Your task to perform on an android device: open the mobile data screen to see how much data has been used Image 0: 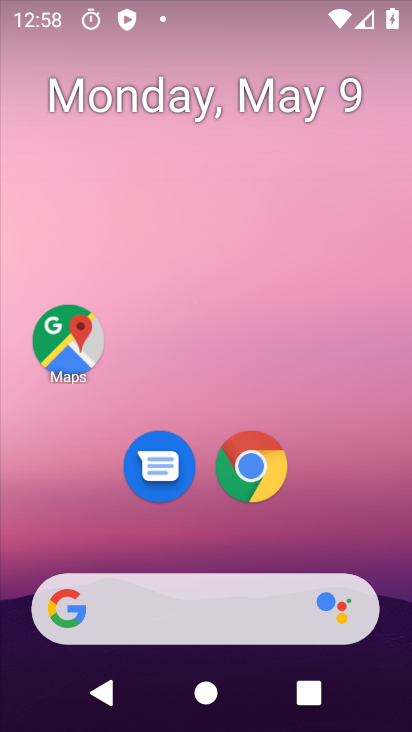
Step 0: press home button
Your task to perform on an android device: open the mobile data screen to see how much data has been used Image 1: 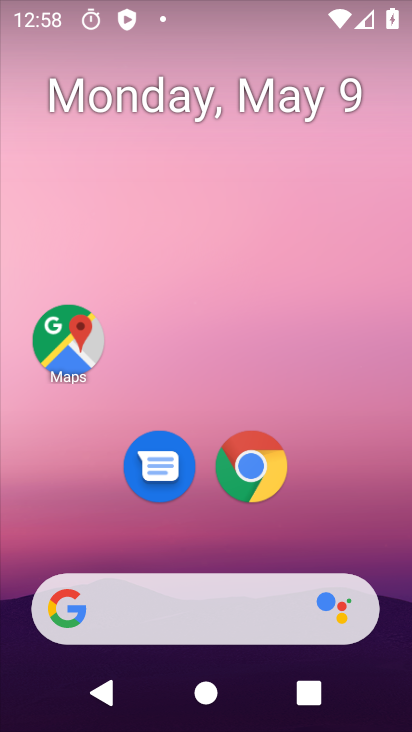
Step 1: drag from (158, 605) to (229, 131)
Your task to perform on an android device: open the mobile data screen to see how much data has been used Image 2: 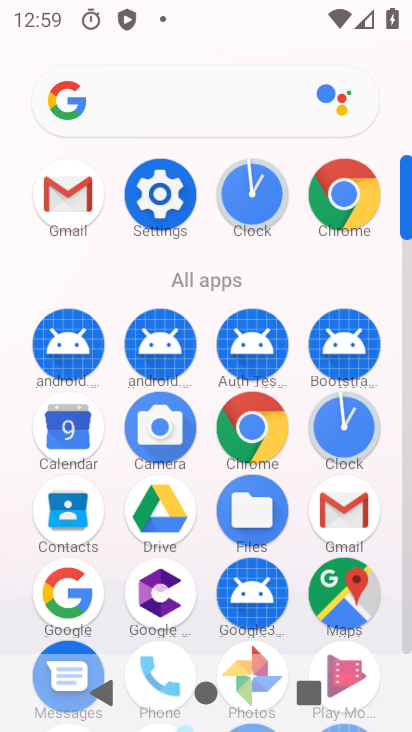
Step 2: click (150, 208)
Your task to perform on an android device: open the mobile data screen to see how much data has been used Image 3: 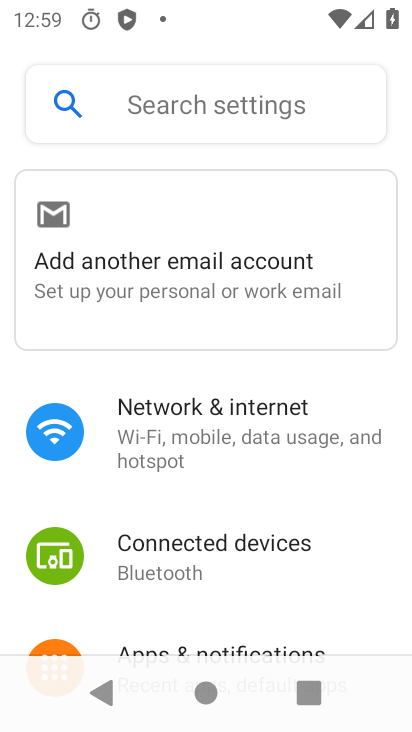
Step 3: drag from (202, 558) to (223, 261)
Your task to perform on an android device: open the mobile data screen to see how much data has been used Image 4: 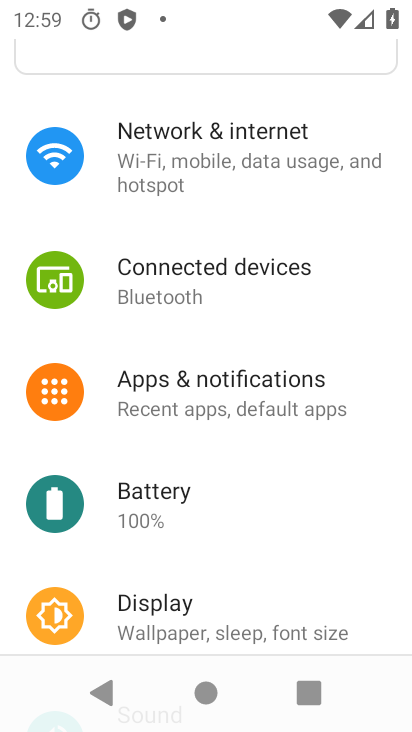
Step 4: click (254, 184)
Your task to perform on an android device: open the mobile data screen to see how much data has been used Image 5: 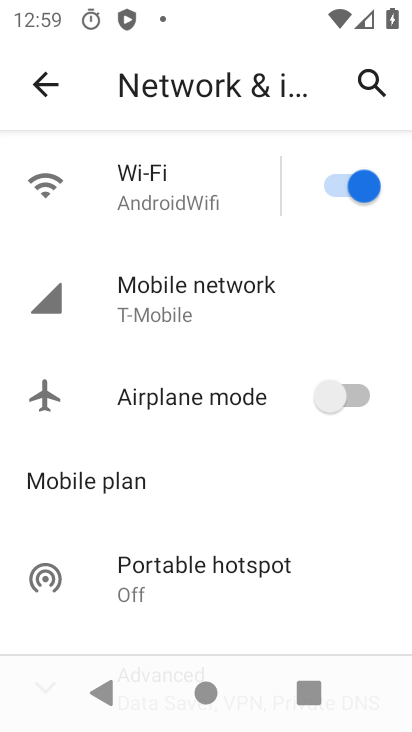
Step 5: drag from (233, 538) to (221, 470)
Your task to perform on an android device: open the mobile data screen to see how much data has been used Image 6: 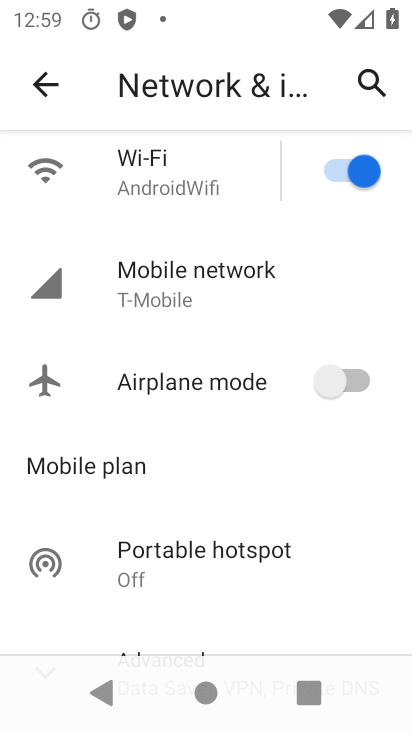
Step 6: click (212, 294)
Your task to perform on an android device: open the mobile data screen to see how much data has been used Image 7: 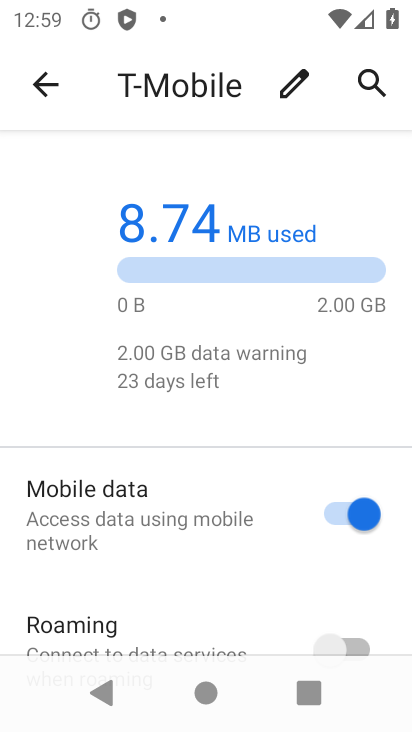
Step 7: drag from (208, 543) to (205, 253)
Your task to perform on an android device: open the mobile data screen to see how much data has been used Image 8: 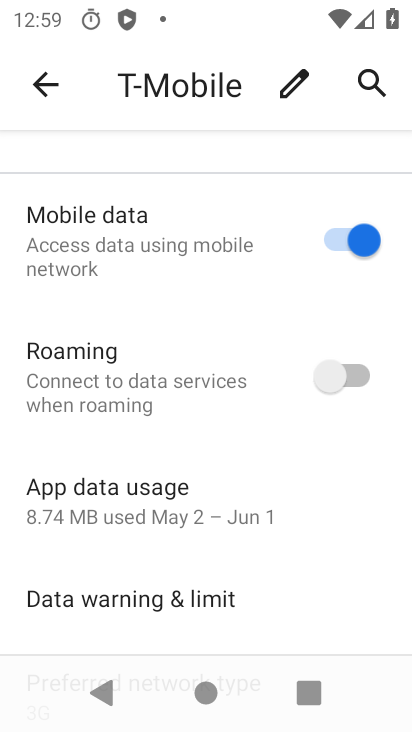
Step 8: click (173, 515)
Your task to perform on an android device: open the mobile data screen to see how much data has been used Image 9: 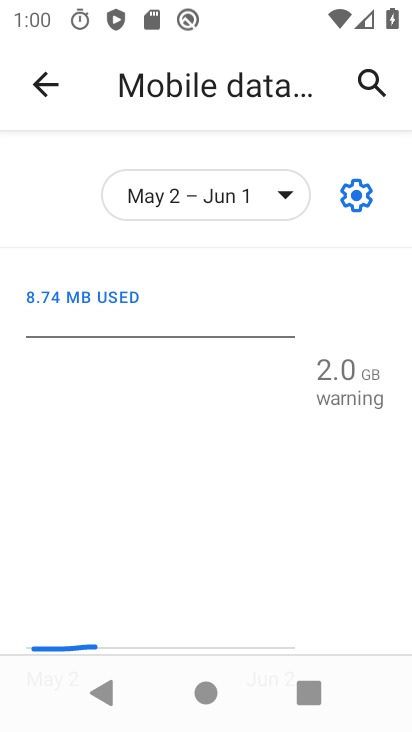
Step 9: task complete